Your task to perform on an android device: Is it going to rain this weekend? Image 0: 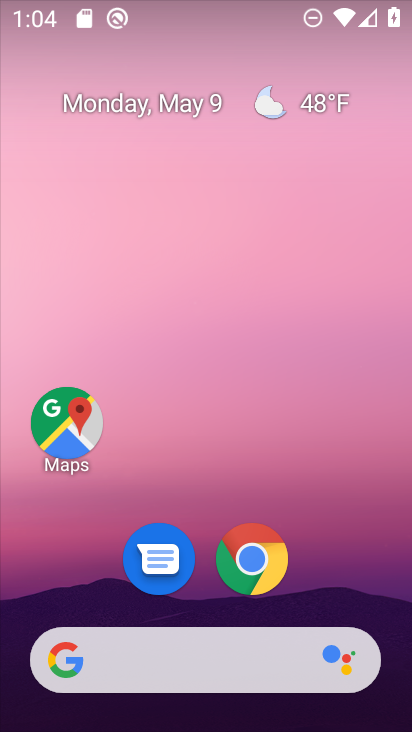
Step 0: drag from (251, 223) to (266, 46)
Your task to perform on an android device: Is it going to rain this weekend? Image 1: 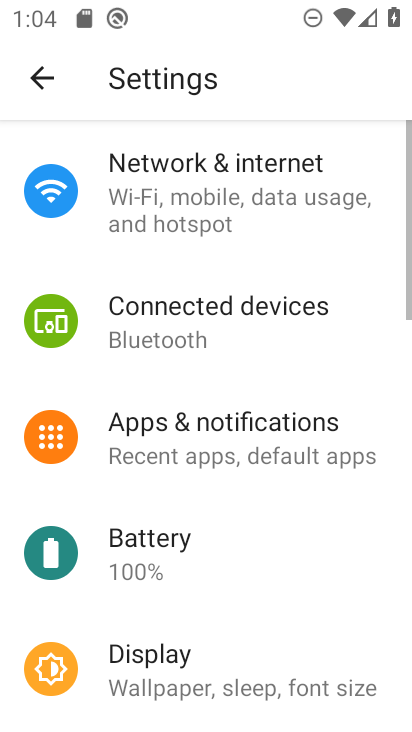
Step 1: drag from (283, 595) to (294, 263)
Your task to perform on an android device: Is it going to rain this weekend? Image 2: 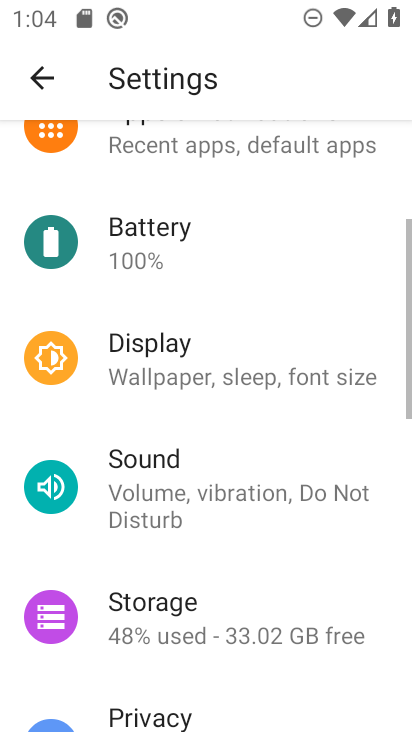
Step 2: press home button
Your task to perform on an android device: Is it going to rain this weekend? Image 3: 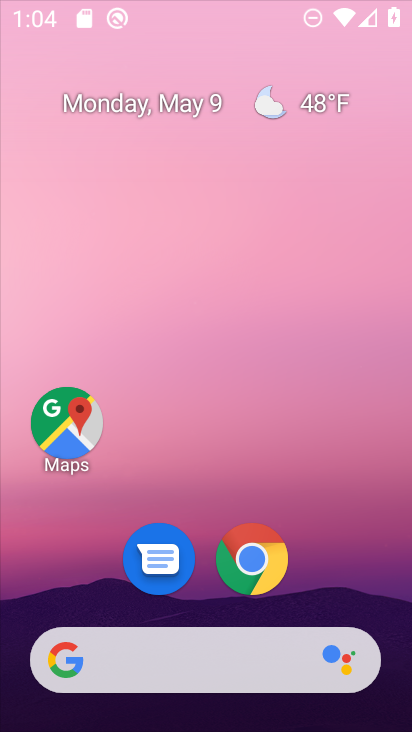
Step 3: drag from (97, 677) to (272, 198)
Your task to perform on an android device: Is it going to rain this weekend? Image 4: 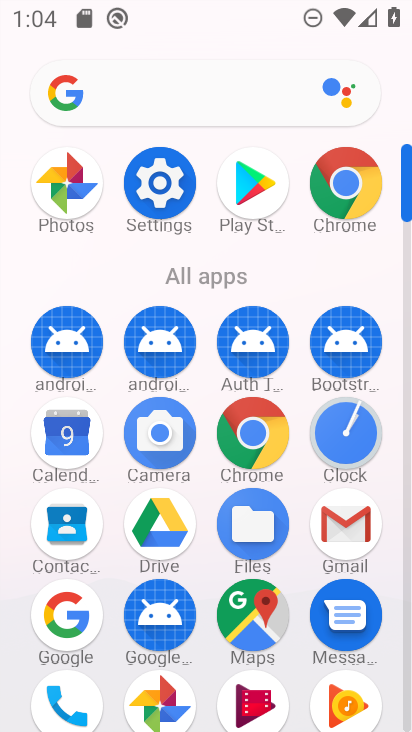
Step 4: click (229, 104)
Your task to perform on an android device: Is it going to rain this weekend? Image 5: 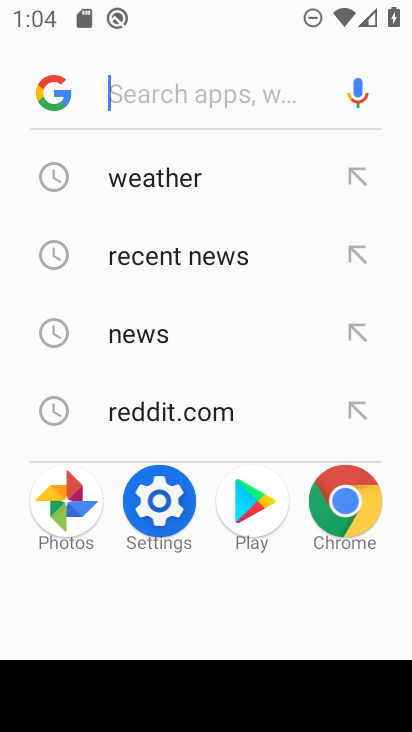
Step 5: type "rain weekend"
Your task to perform on an android device: Is it going to rain this weekend? Image 6: 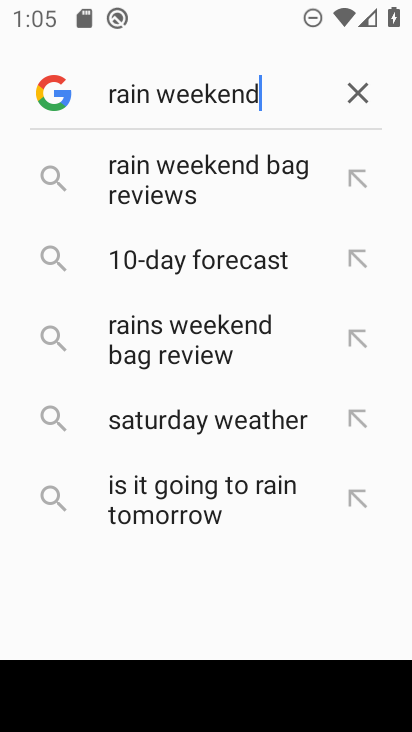
Step 6: click (157, 173)
Your task to perform on an android device: Is it going to rain this weekend? Image 7: 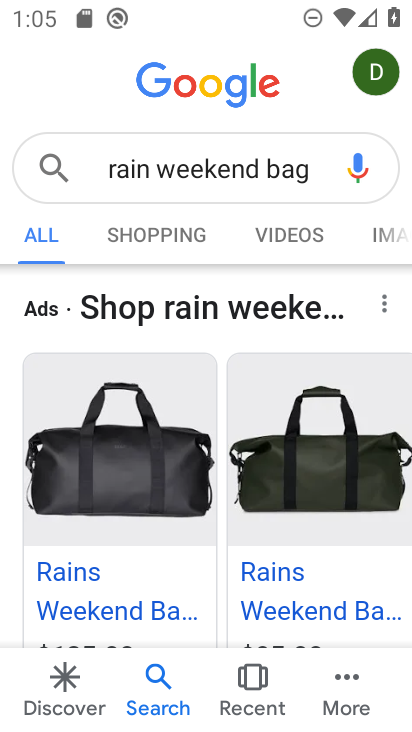
Step 7: click (204, 173)
Your task to perform on an android device: Is it going to rain this weekend? Image 8: 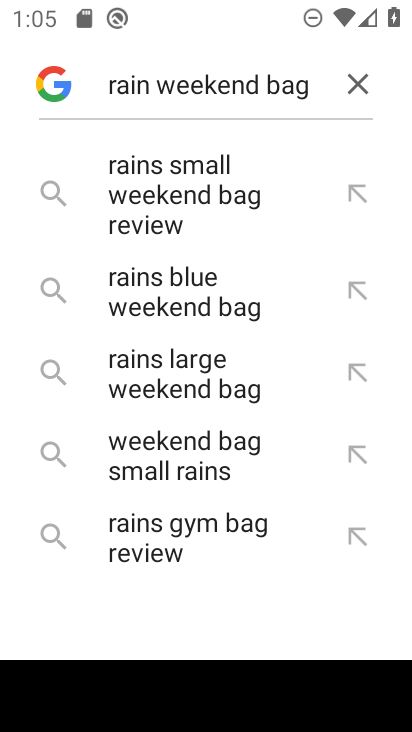
Step 8: click (353, 83)
Your task to perform on an android device: Is it going to rain this weekend? Image 9: 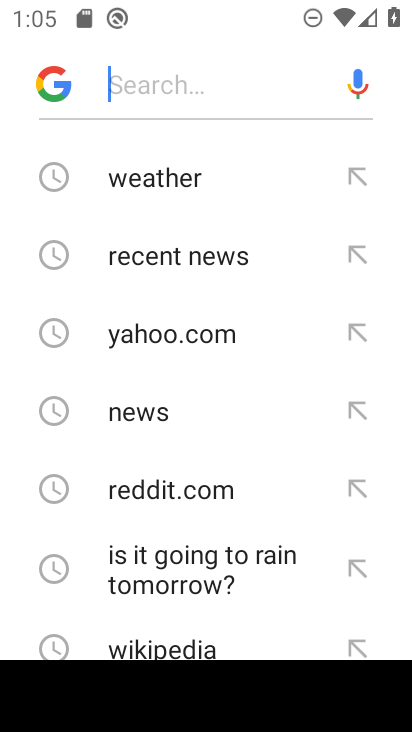
Step 9: type "going to rain this weekend"
Your task to perform on an android device: Is it going to rain this weekend? Image 10: 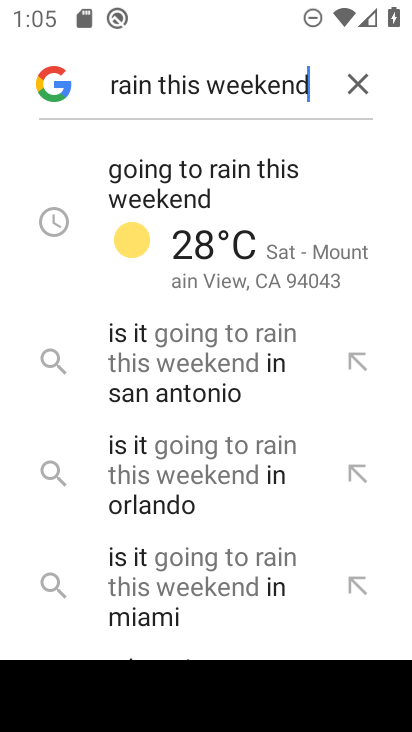
Step 10: click (237, 236)
Your task to perform on an android device: Is it going to rain this weekend? Image 11: 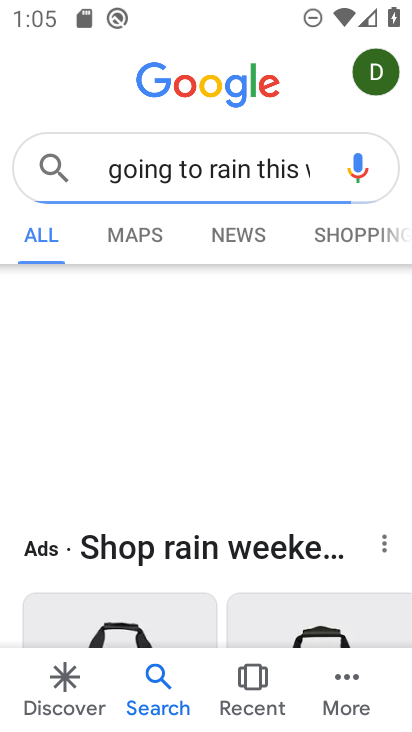
Step 11: task complete